Your task to perform on an android device: check google app version Image 0: 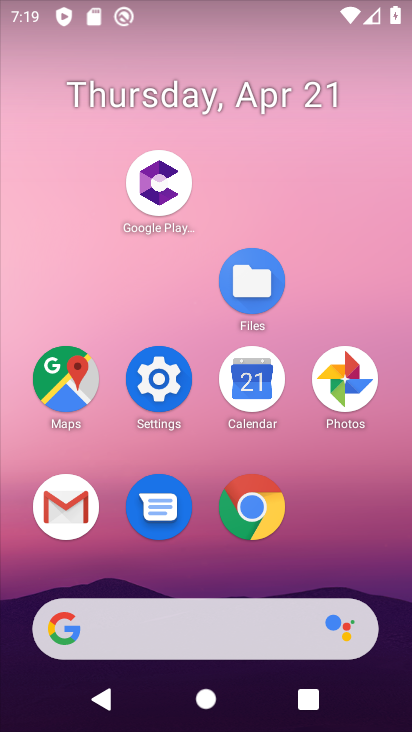
Step 0: drag from (315, 521) to (323, 59)
Your task to perform on an android device: check google app version Image 1: 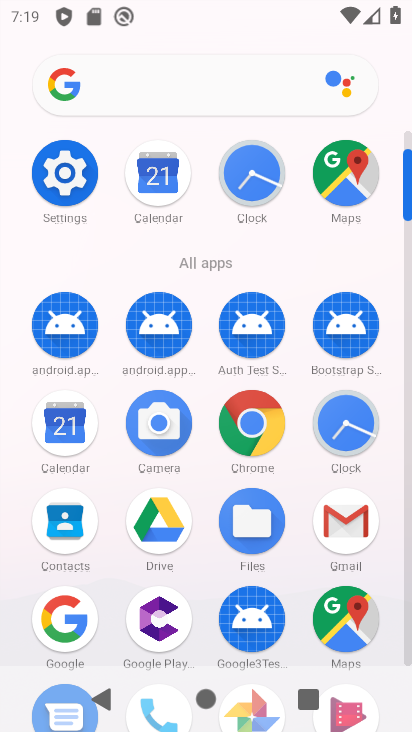
Step 1: click (64, 604)
Your task to perform on an android device: check google app version Image 2: 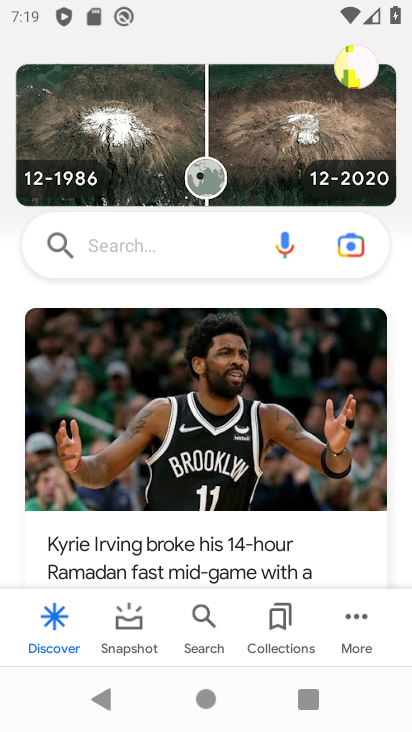
Step 2: click (357, 624)
Your task to perform on an android device: check google app version Image 3: 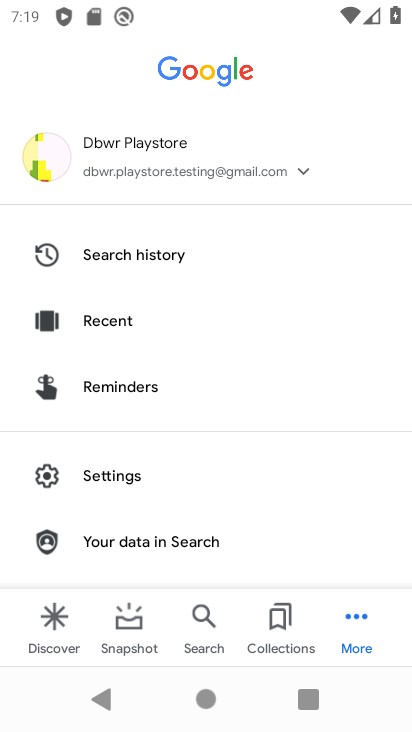
Step 3: click (110, 468)
Your task to perform on an android device: check google app version Image 4: 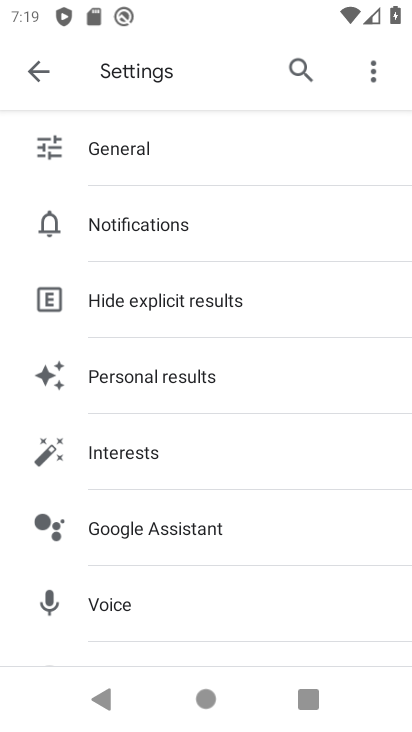
Step 4: drag from (266, 463) to (275, 56)
Your task to perform on an android device: check google app version Image 5: 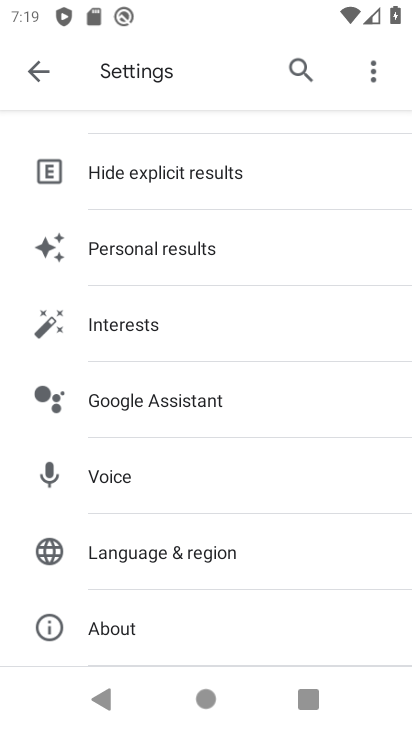
Step 5: click (109, 619)
Your task to perform on an android device: check google app version Image 6: 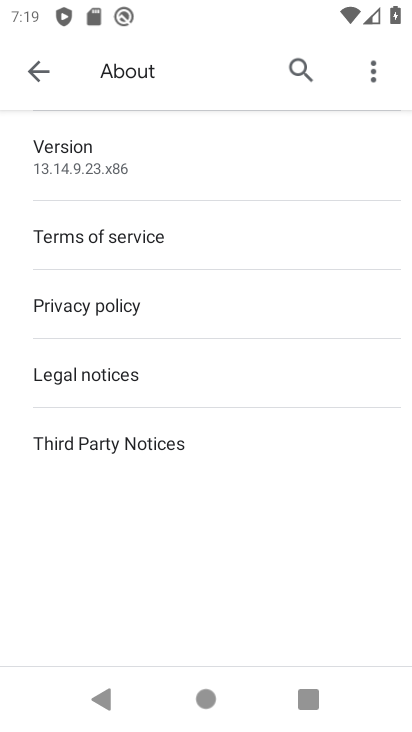
Step 6: task complete